Your task to perform on an android device: Go to Amazon Image 0: 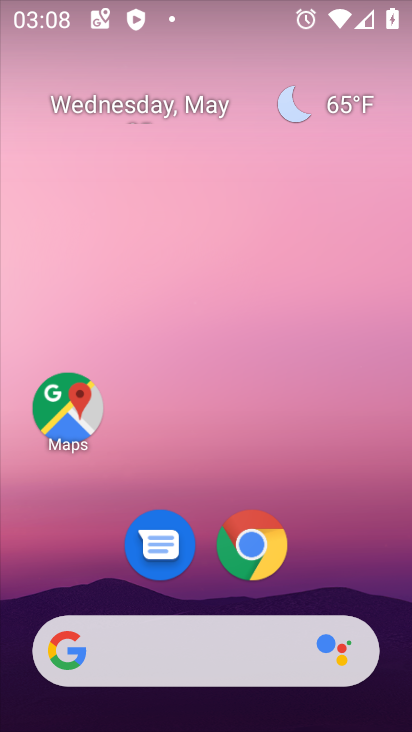
Step 0: click (265, 552)
Your task to perform on an android device: Go to Amazon Image 1: 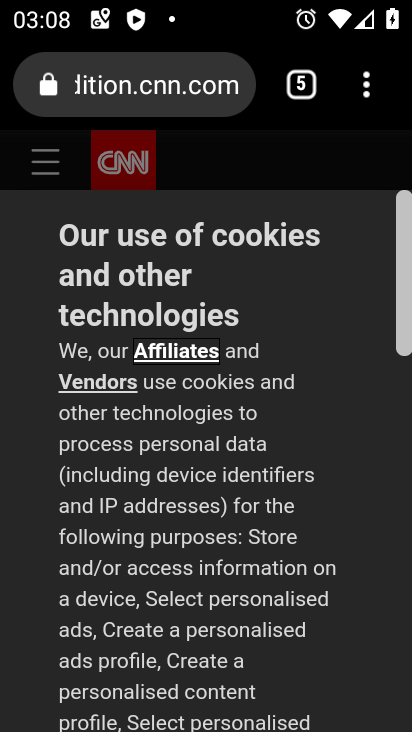
Step 1: click (301, 93)
Your task to perform on an android device: Go to Amazon Image 2: 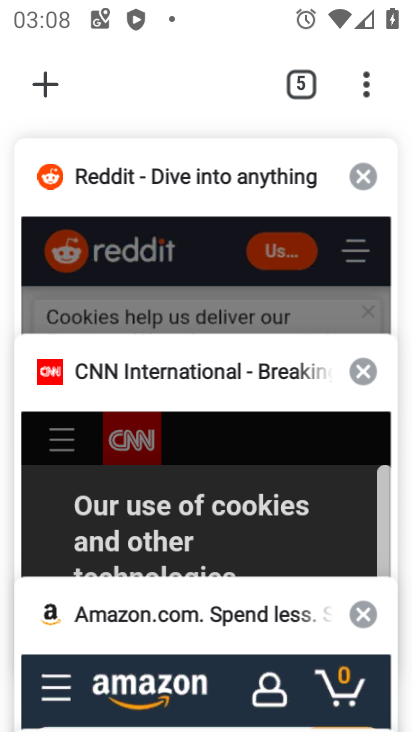
Step 2: click (34, 82)
Your task to perform on an android device: Go to Amazon Image 3: 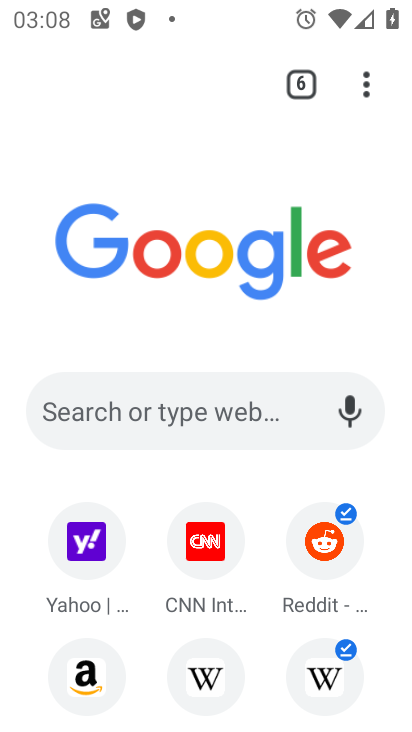
Step 3: click (86, 677)
Your task to perform on an android device: Go to Amazon Image 4: 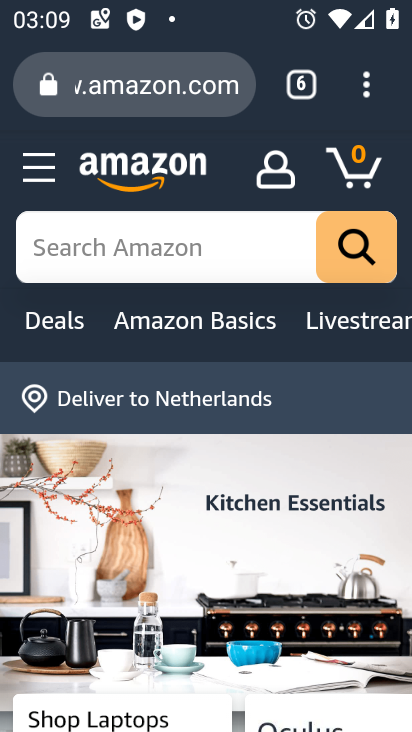
Step 4: task complete